Your task to perform on an android device: Open calendar and show me the third week of next month Image 0: 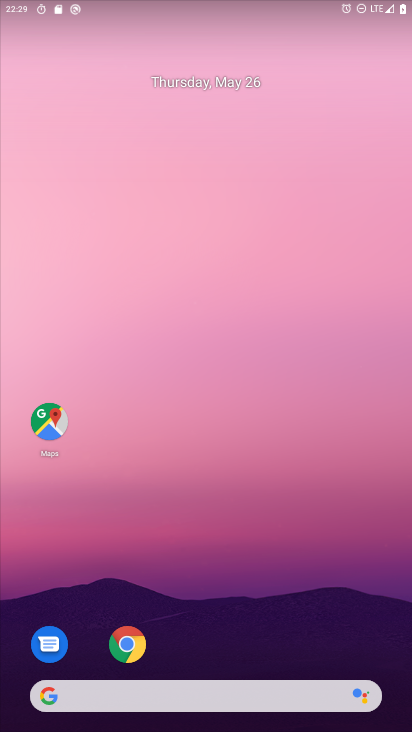
Step 0: drag from (187, 647) to (361, 358)
Your task to perform on an android device: Open calendar and show me the third week of next month Image 1: 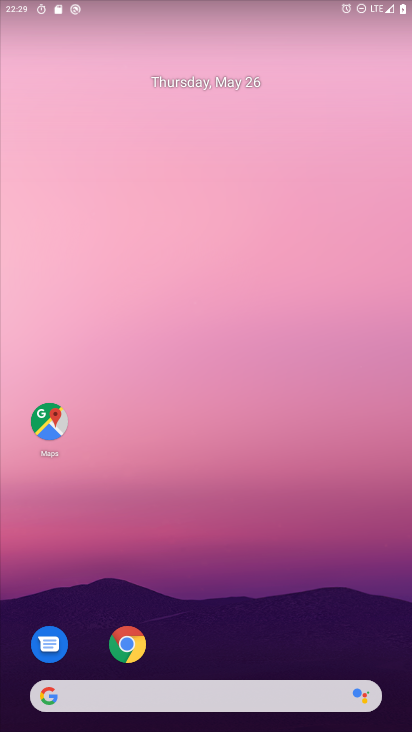
Step 1: drag from (206, 656) to (309, 230)
Your task to perform on an android device: Open calendar and show me the third week of next month Image 2: 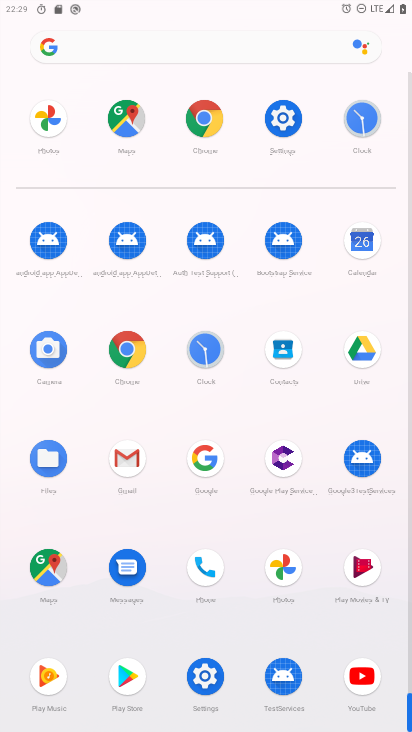
Step 2: click (351, 232)
Your task to perform on an android device: Open calendar and show me the third week of next month Image 3: 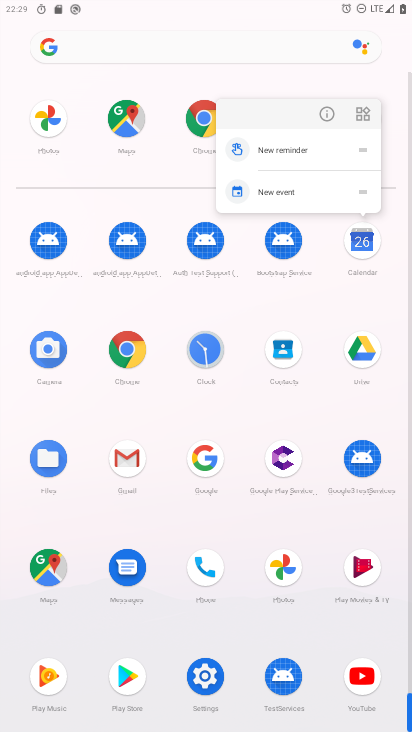
Step 3: click (331, 113)
Your task to perform on an android device: Open calendar and show me the third week of next month Image 4: 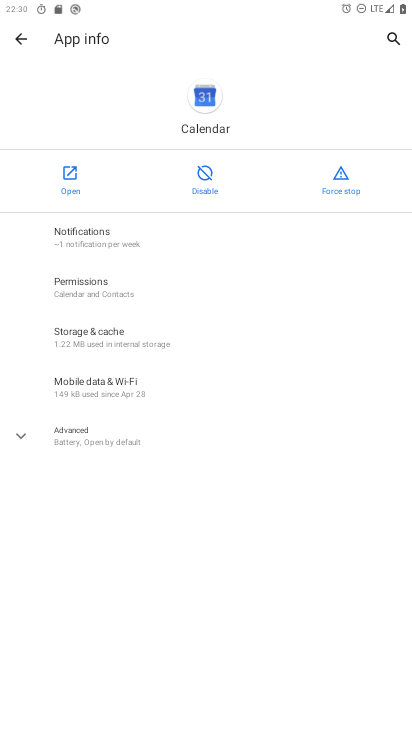
Step 4: click (73, 178)
Your task to perform on an android device: Open calendar and show me the third week of next month Image 5: 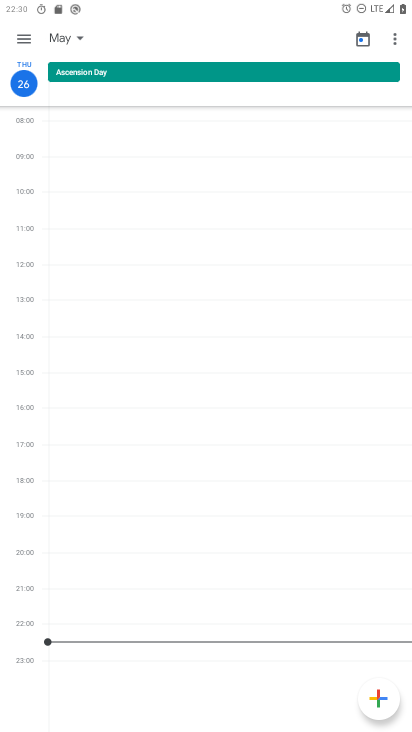
Step 5: click (82, 30)
Your task to perform on an android device: Open calendar and show me the third week of next month Image 6: 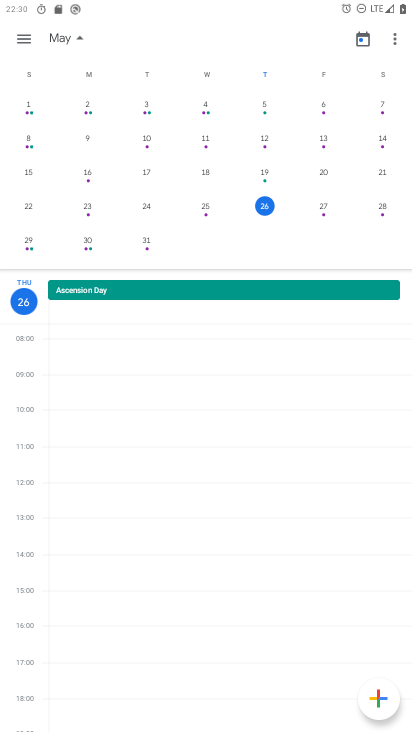
Step 6: drag from (358, 145) to (0, 233)
Your task to perform on an android device: Open calendar and show me the third week of next month Image 7: 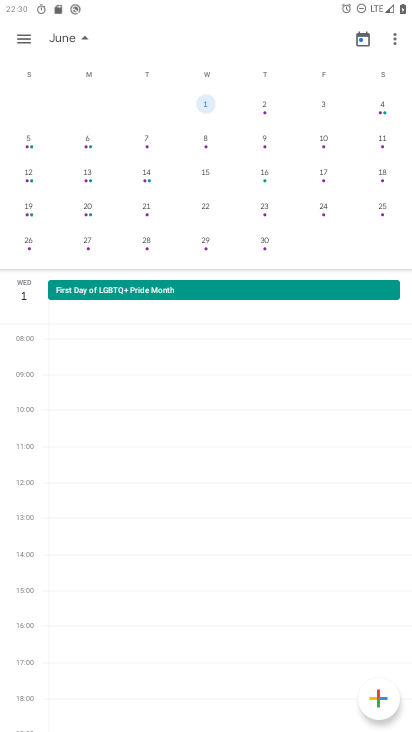
Step 7: click (262, 174)
Your task to perform on an android device: Open calendar and show me the third week of next month Image 8: 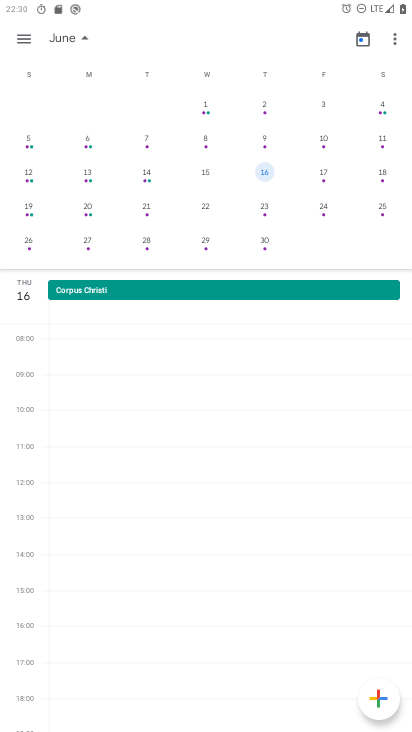
Step 8: task complete